Your task to perform on an android device: toggle data saver in the chrome app Image 0: 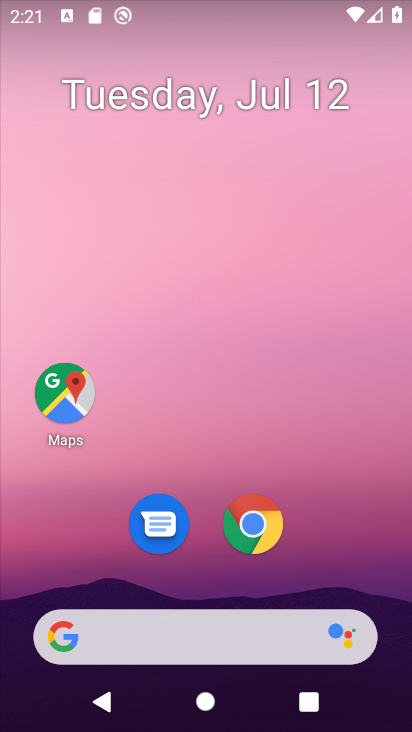
Step 0: click (276, 519)
Your task to perform on an android device: toggle data saver in the chrome app Image 1: 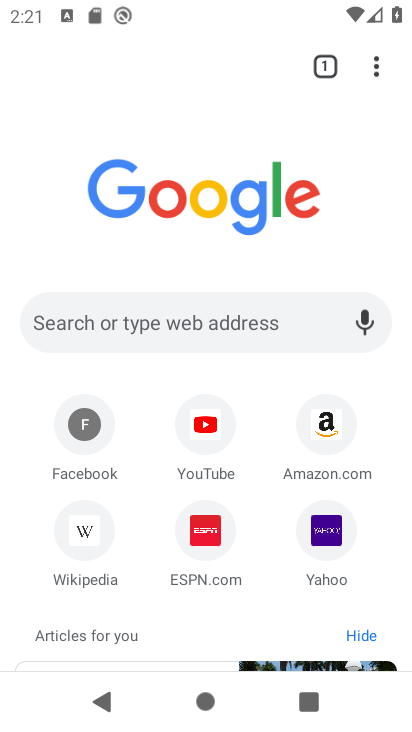
Step 1: click (372, 69)
Your task to perform on an android device: toggle data saver in the chrome app Image 2: 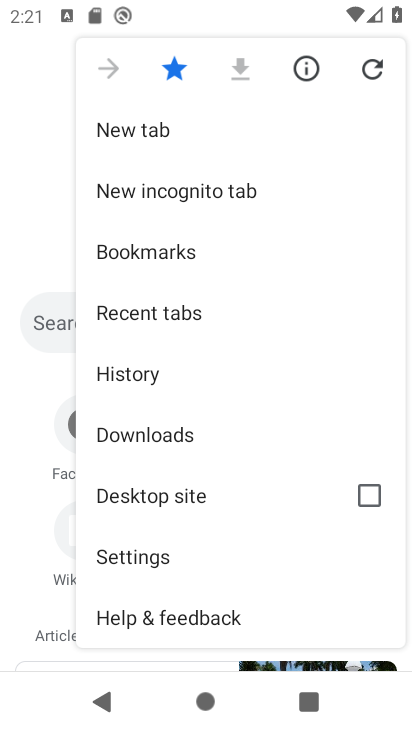
Step 2: click (154, 554)
Your task to perform on an android device: toggle data saver in the chrome app Image 3: 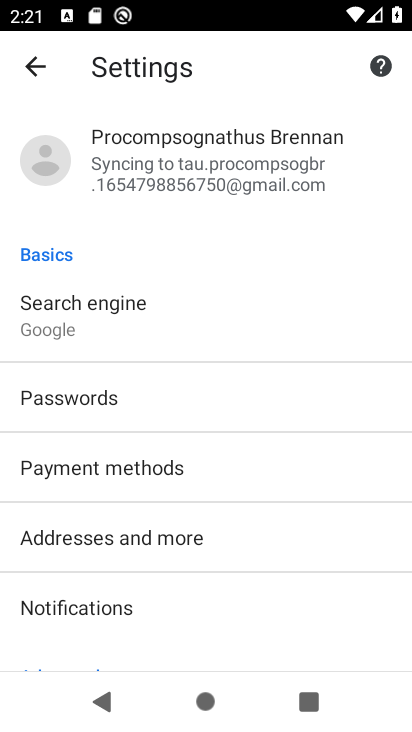
Step 3: drag from (225, 616) to (244, 347)
Your task to perform on an android device: toggle data saver in the chrome app Image 4: 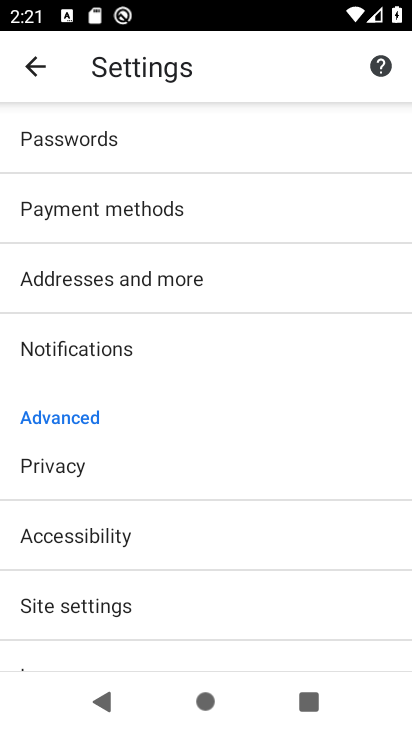
Step 4: drag from (193, 541) to (215, 355)
Your task to perform on an android device: toggle data saver in the chrome app Image 5: 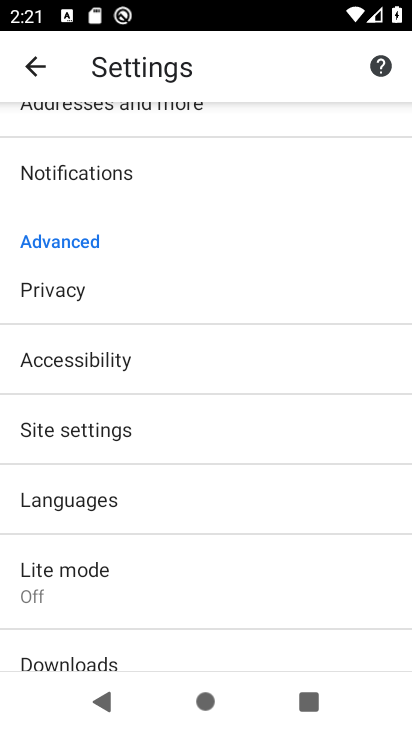
Step 5: click (138, 592)
Your task to perform on an android device: toggle data saver in the chrome app Image 6: 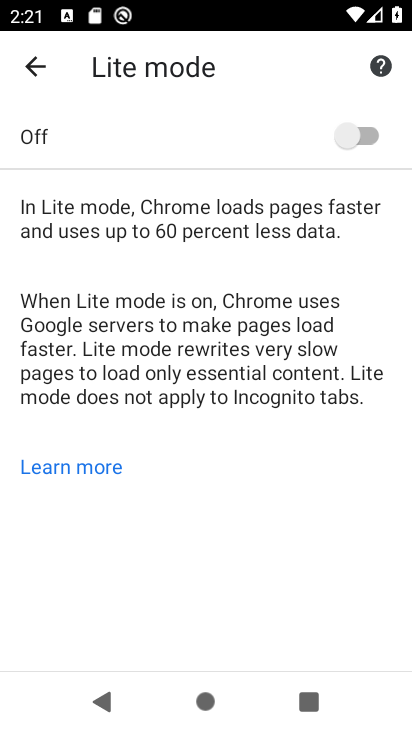
Step 6: click (364, 132)
Your task to perform on an android device: toggle data saver in the chrome app Image 7: 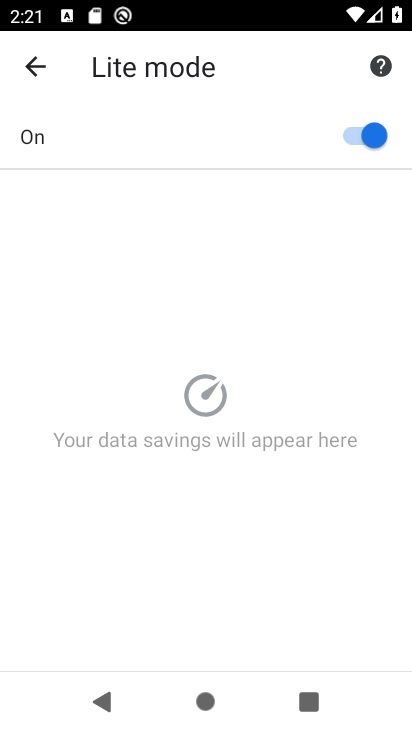
Step 7: task complete